Your task to perform on an android device: Show me recent news Image 0: 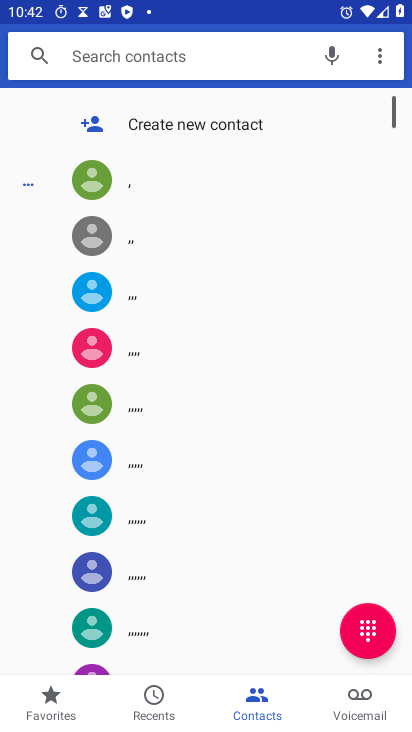
Step 0: press home button
Your task to perform on an android device: Show me recent news Image 1: 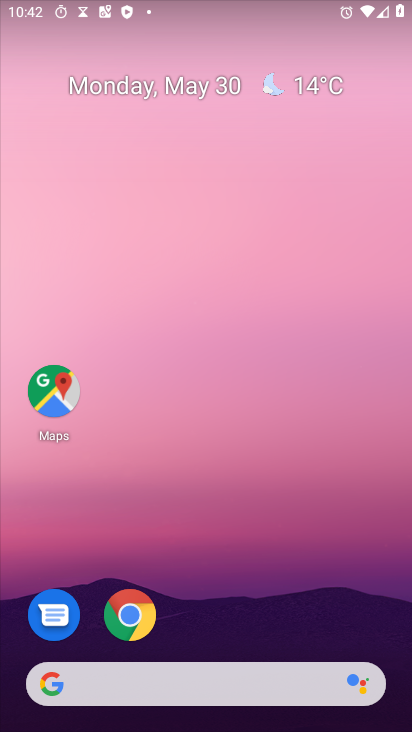
Step 1: drag from (291, 630) to (277, 118)
Your task to perform on an android device: Show me recent news Image 2: 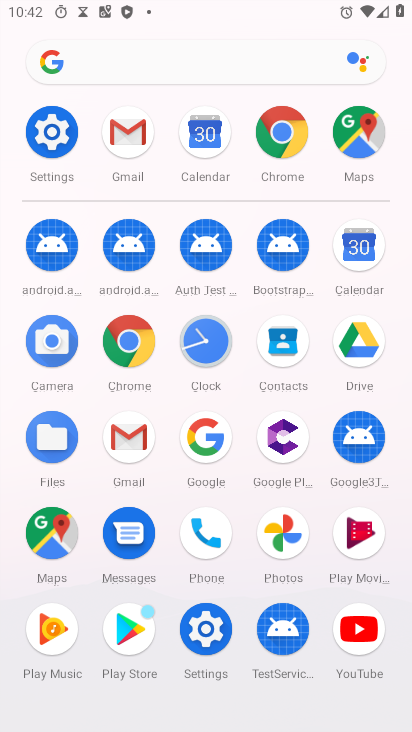
Step 2: click (277, 122)
Your task to perform on an android device: Show me recent news Image 3: 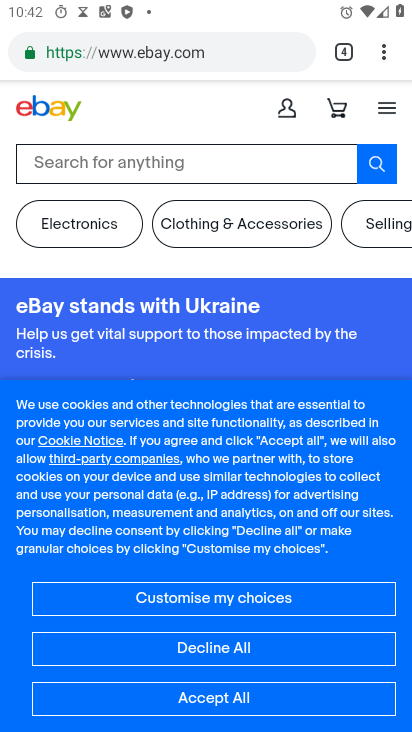
Step 3: drag from (387, 57) to (173, 113)
Your task to perform on an android device: Show me recent news Image 4: 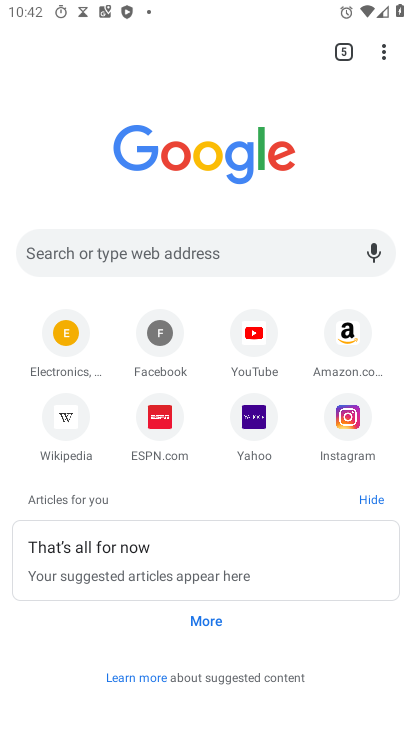
Step 4: drag from (276, 662) to (333, 262)
Your task to perform on an android device: Show me recent news Image 5: 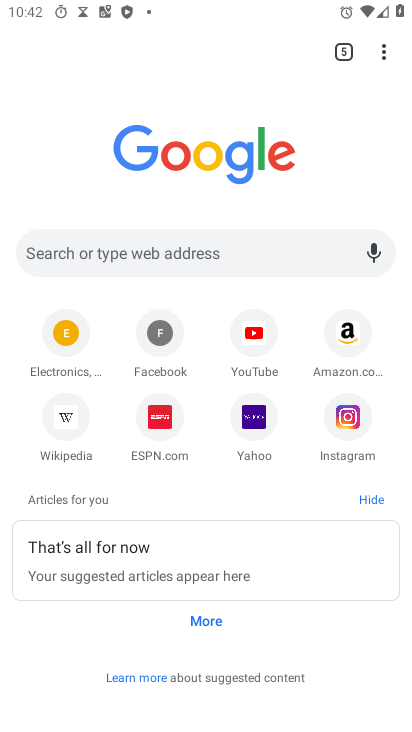
Step 5: click (198, 621)
Your task to perform on an android device: Show me recent news Image 6: 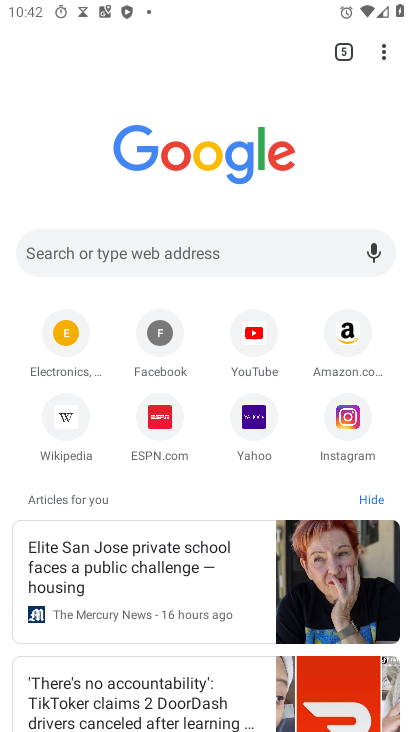
Step 6: task complete